Your task to perform on an android device: What is the news today? Image 0: 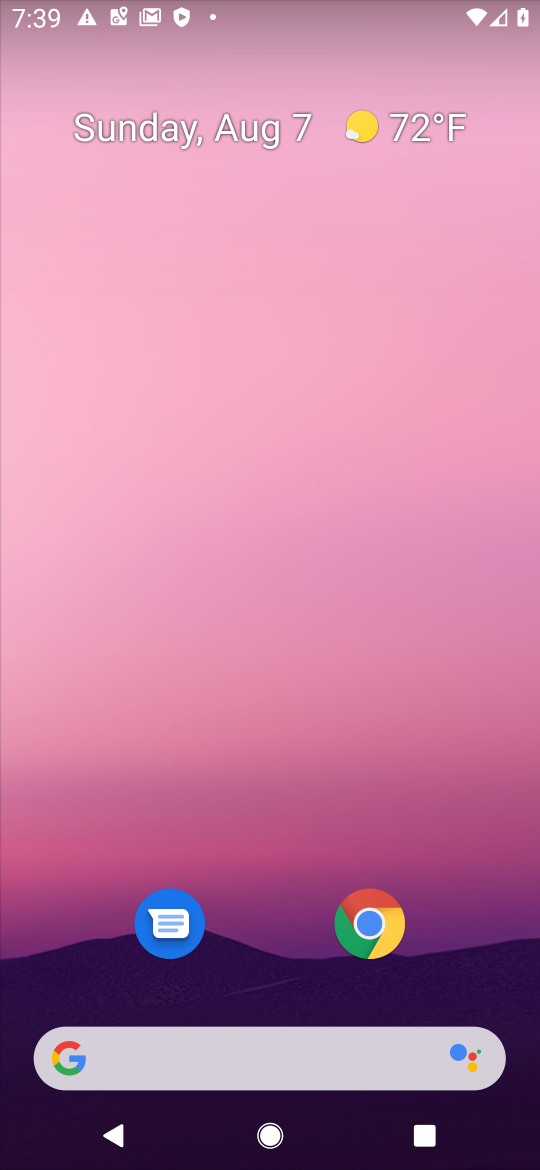
Step 0: drag from (511, 986) to (329, 58)
Your task to perform on an android device: What is the news today? Image 1: 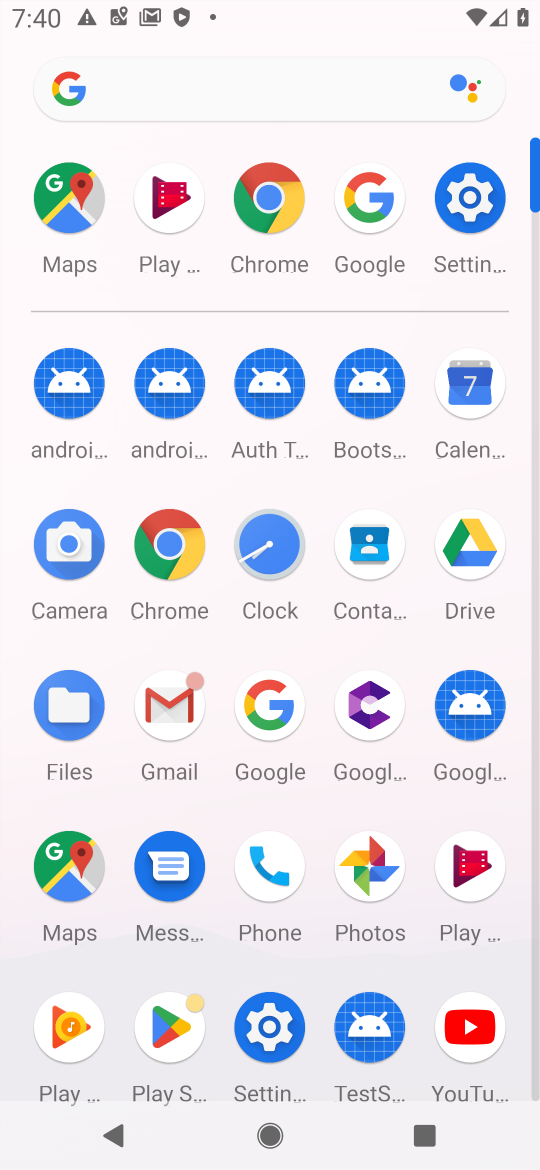
Step 1: click (280, 709)
Your task to perform on an android device: What is the news today? Image 2: 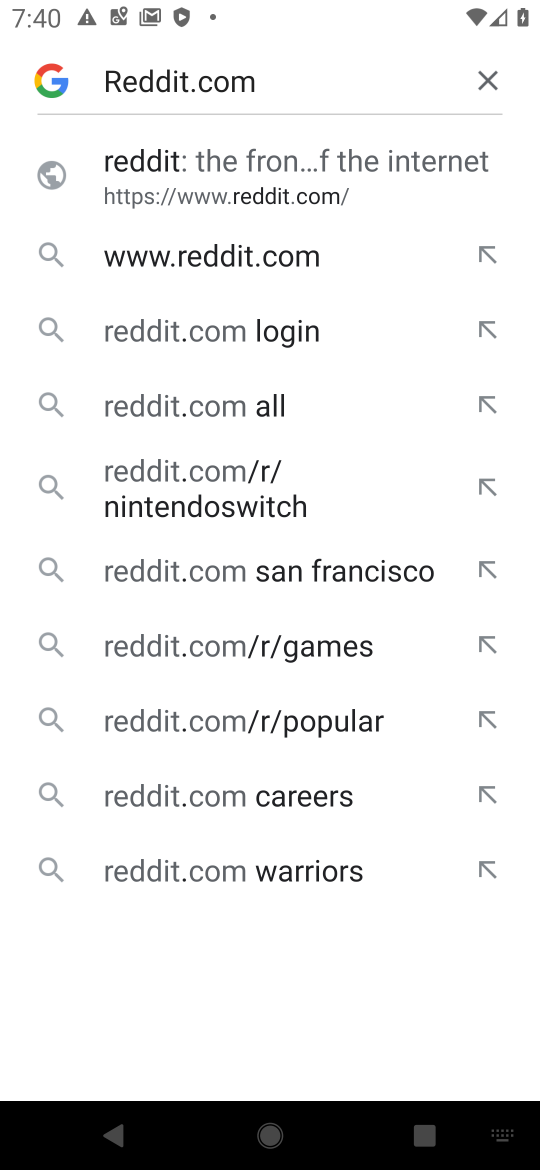
Step 2: click (497, 77)
Your task to perform on an android device: What is the news today? Image 3: 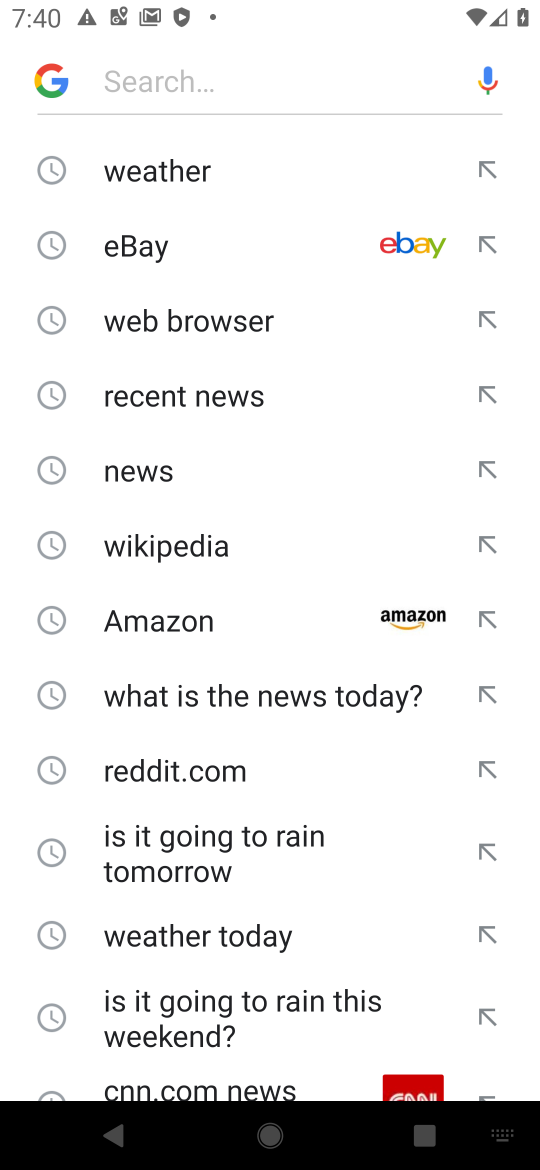
Step 3: click (294, 694)
Your task to perform on an android device: What is the news today? Image 4: 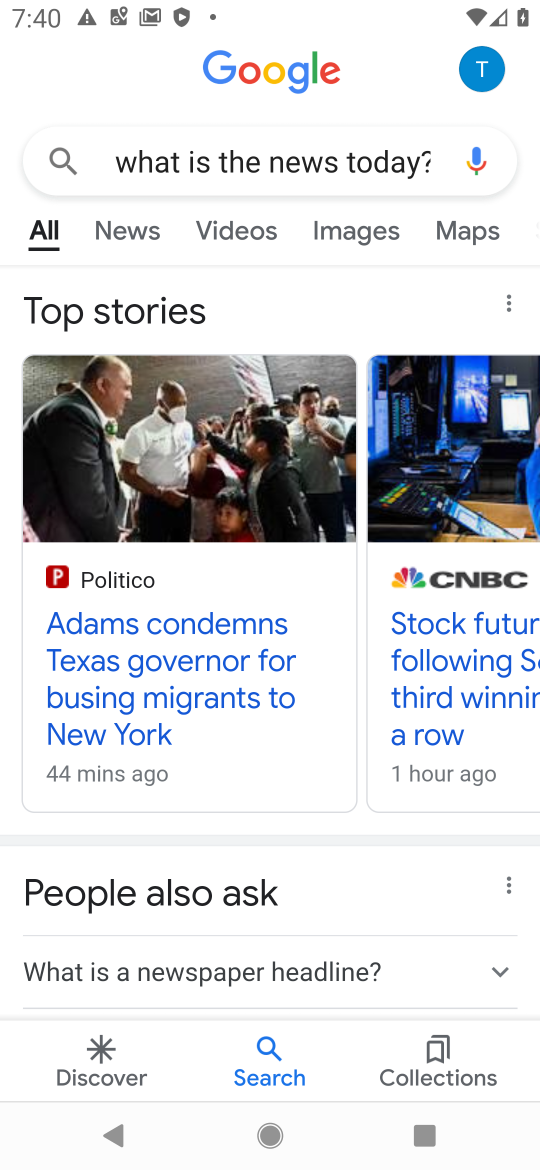
Step 4: task complete